Your task to perform on an android device: check data usage Image 0: 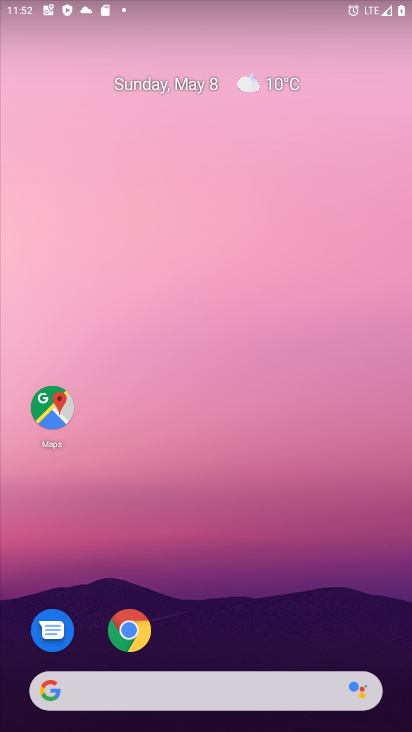
Step 0: drag from (366, 612) to (225, 17)
Your task to perform on an android device: check data usage Image 1: 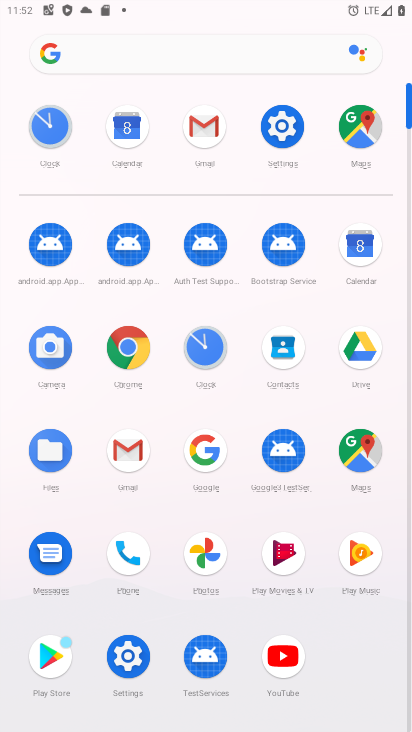
Step 1: click (122, 678)
Your task to perform on an android device: check data usage Image 2: 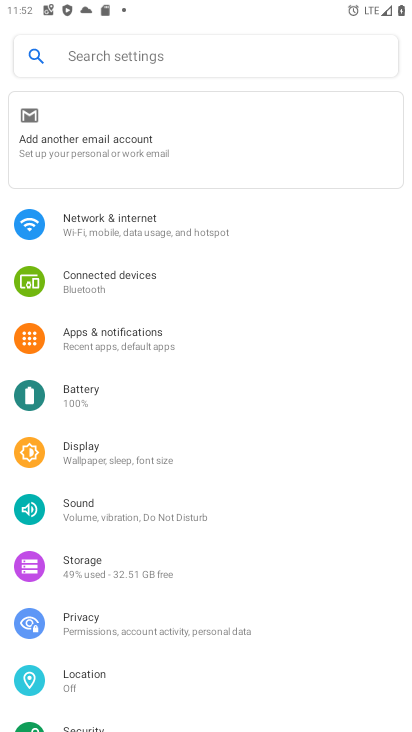
Step 2: click (149, 225)
Your task to perform on an android device: check data usage Image 3: 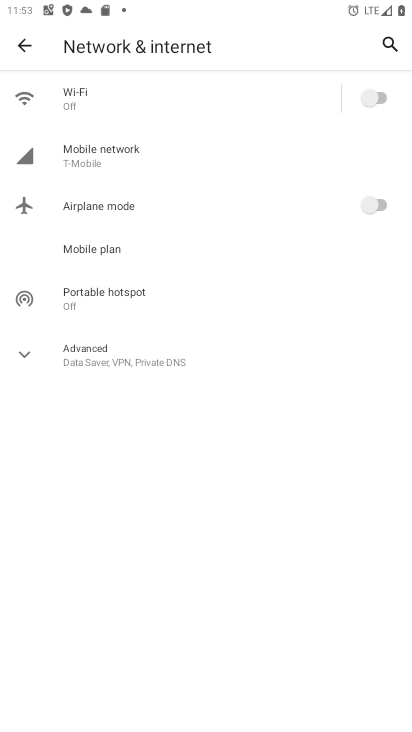
Step 3: click (113, 148)
Your task to perform on an android device: check data usage Image 4: 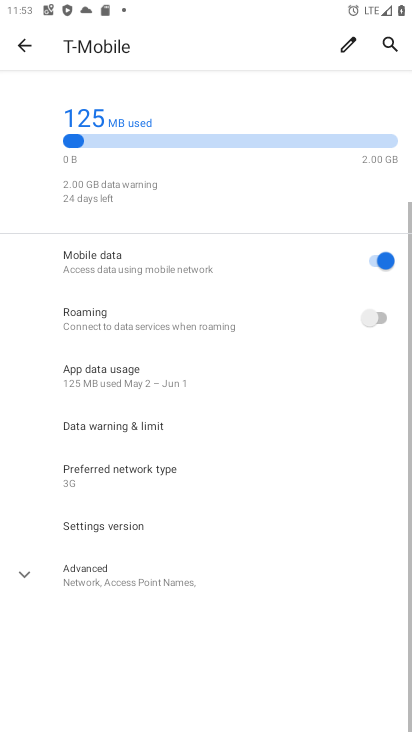
Step 4: click (145, 378)
Your task to perform on an android device: check data usage Image 5: 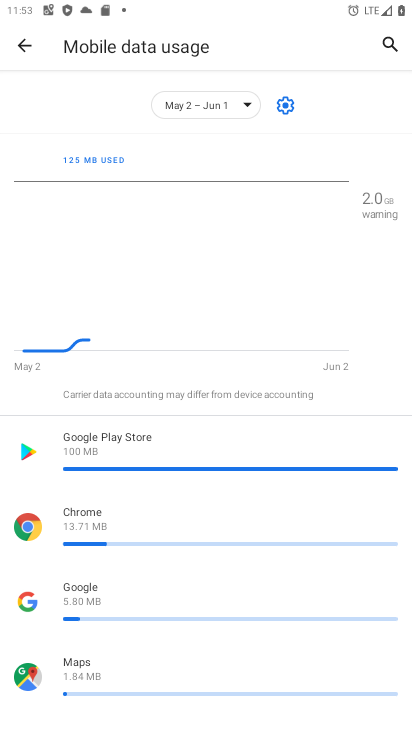
Step 5: task complete